Your task to perform on an android device: set an alarm Image 0: 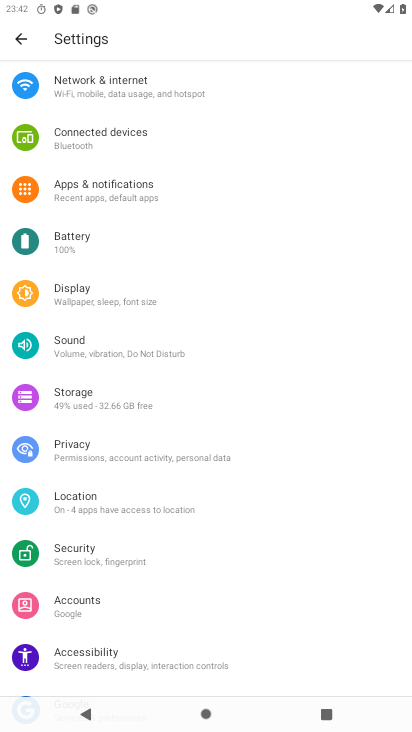
Step 0: press home button
Your task to perform on an android device: set an alarm Image 1: 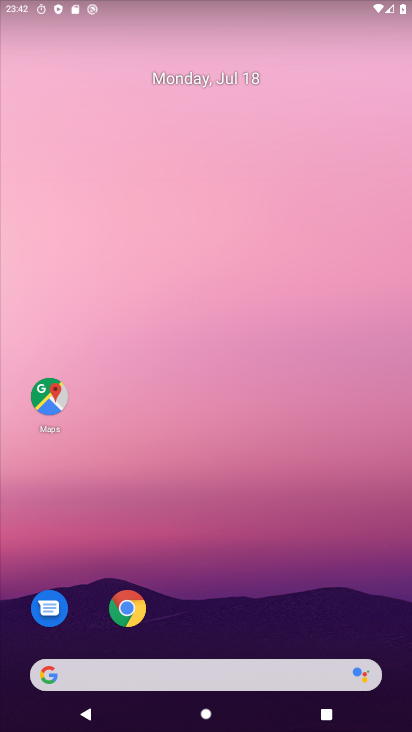
Step 1: drag from (205, 677) to (361, 48)
Your task to perform on an android device: set an alarm Image 2: 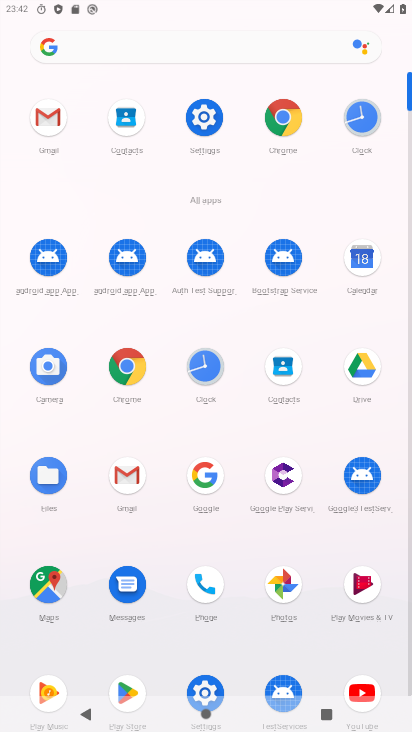
Step 2: click (363, 115)
Your task to perform on an android device: set an alarm Image 3: 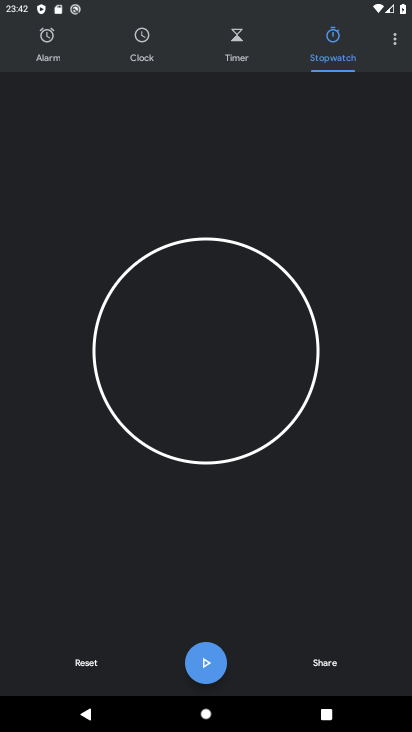
Step 3: click (50, 40)
Your task to perform on an android device: set an alarm Image 4: 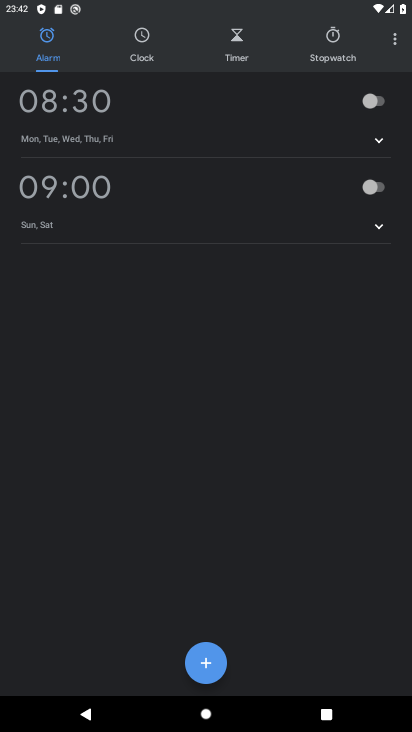
Step 4: click (206, 662)
Your task to perform on an android device: set an alarm Image 5: 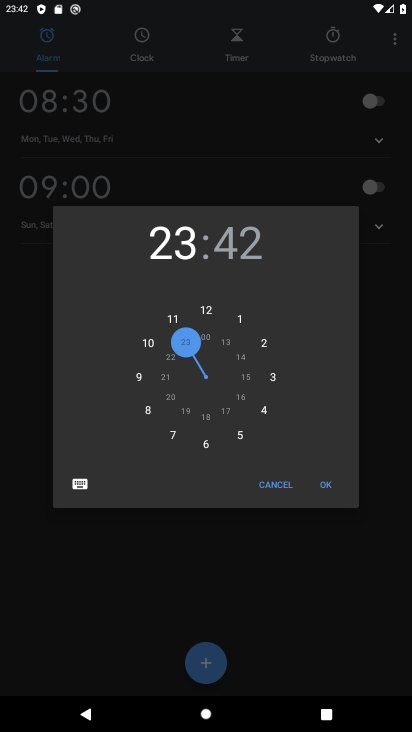
Step 5: click (165, 399)
Your task to perform on an android device: set an alarm Image 6: 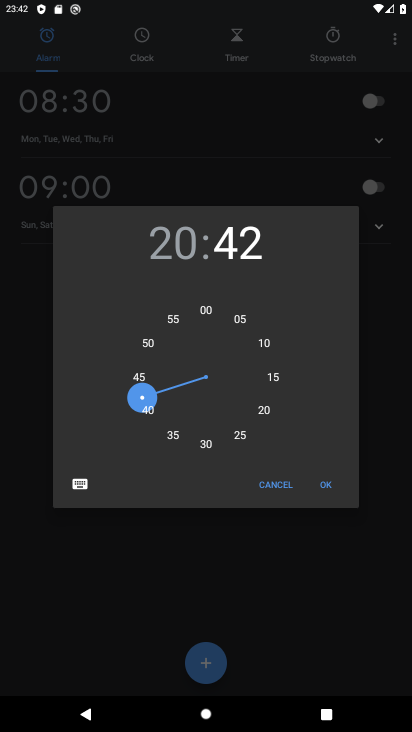
Step 6: click (211, 311)
Your task to perform on an android device: set an alarm Image 7: 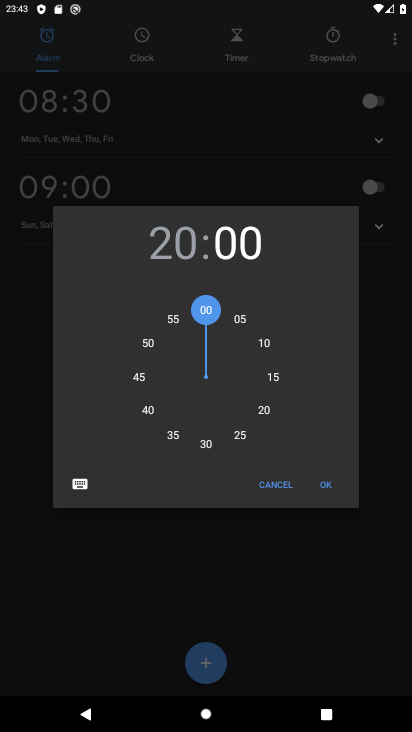
Step 7: click (326, 485)
Your task to perform on an android device: set an alarm Image 8: 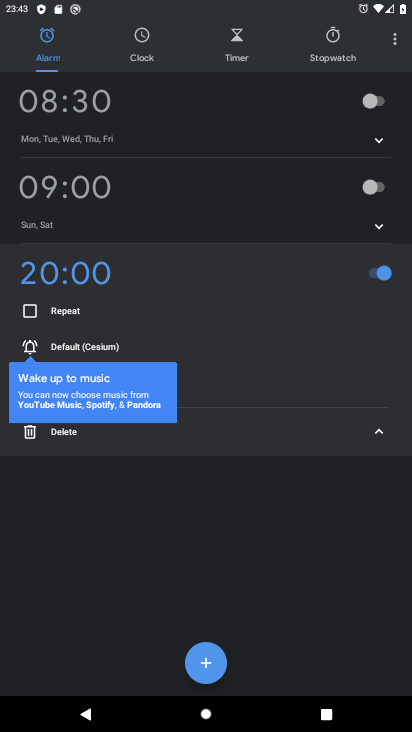
Step 8: click (385, 432)
Your task to perform on an android device: set an alarm Image 9: 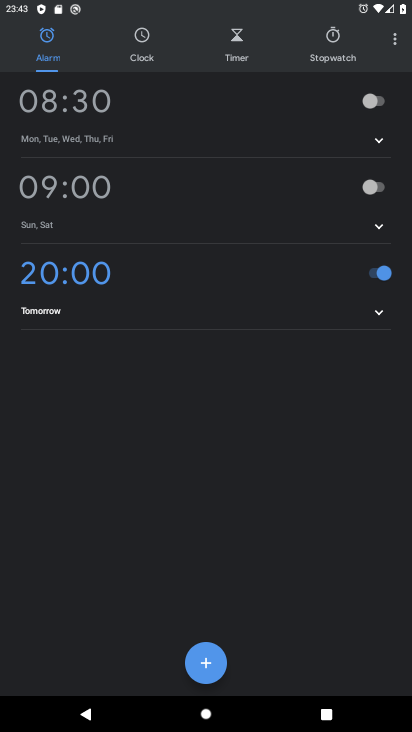
Step 9: task complete